Your task to perform on an android device: open app "Cash App" (install if not already installed) and go to login screen Image 0: 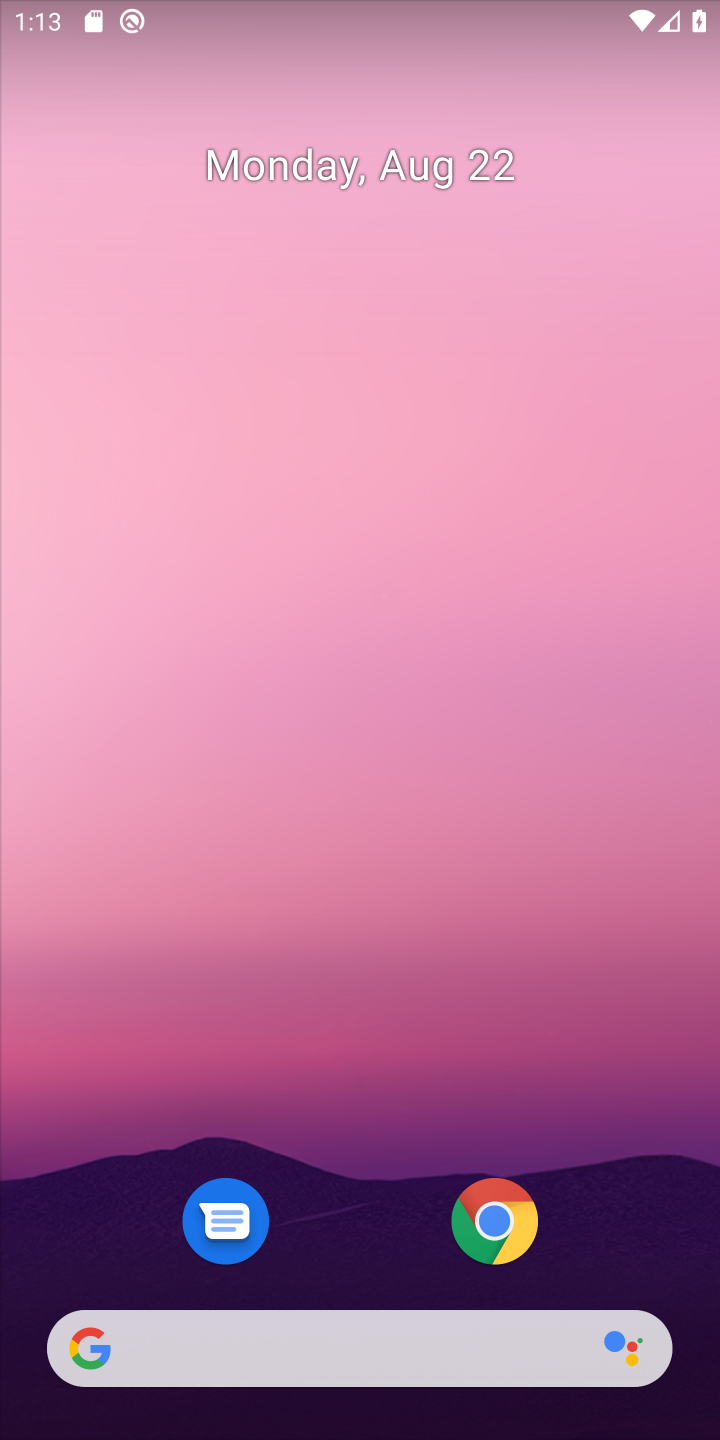
Step 0: press home button
Your task to perform on an android device: open app "Cash App" (install if not already installed) and go to login screen Image 1: 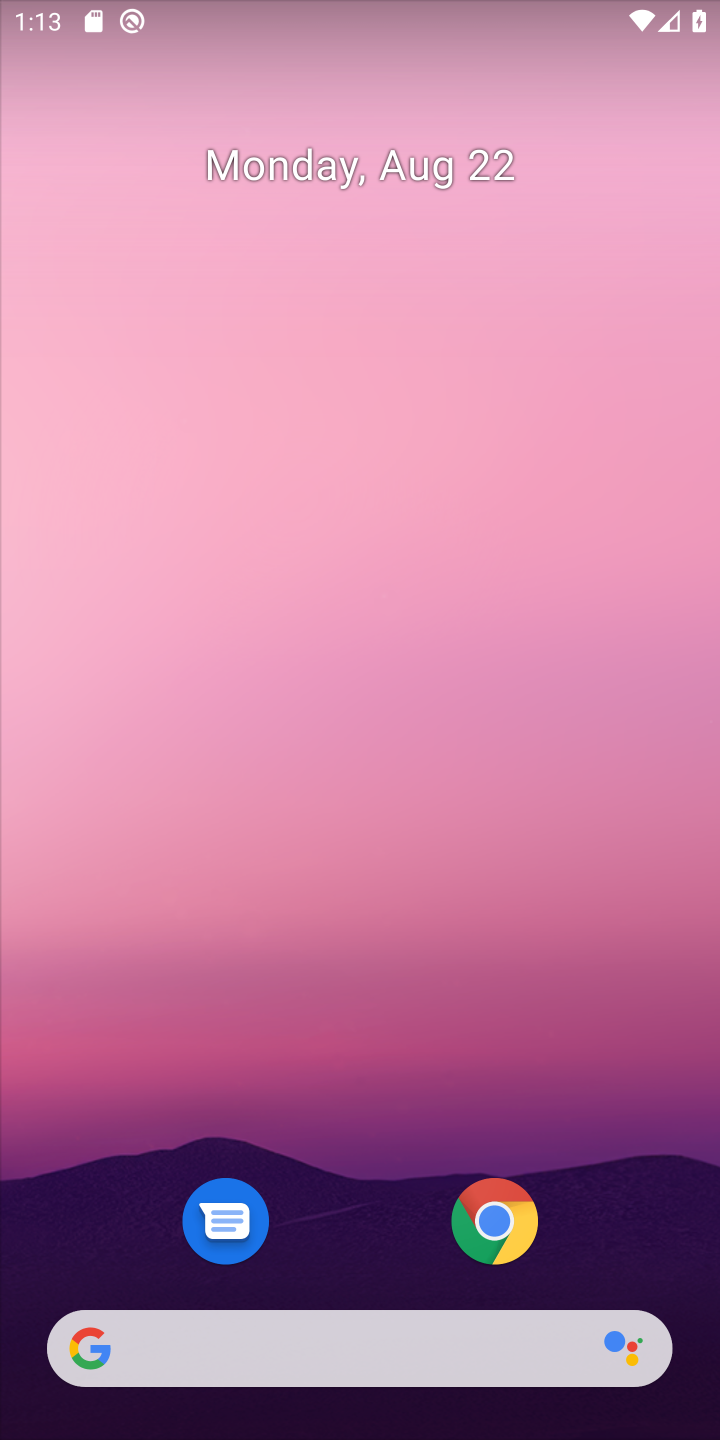
Step 1: drag from (362, 1255) to (407, 137)
Your task to perform on an android device: open app "Cash App" (install if not already installed) and go to login screen Image 2: 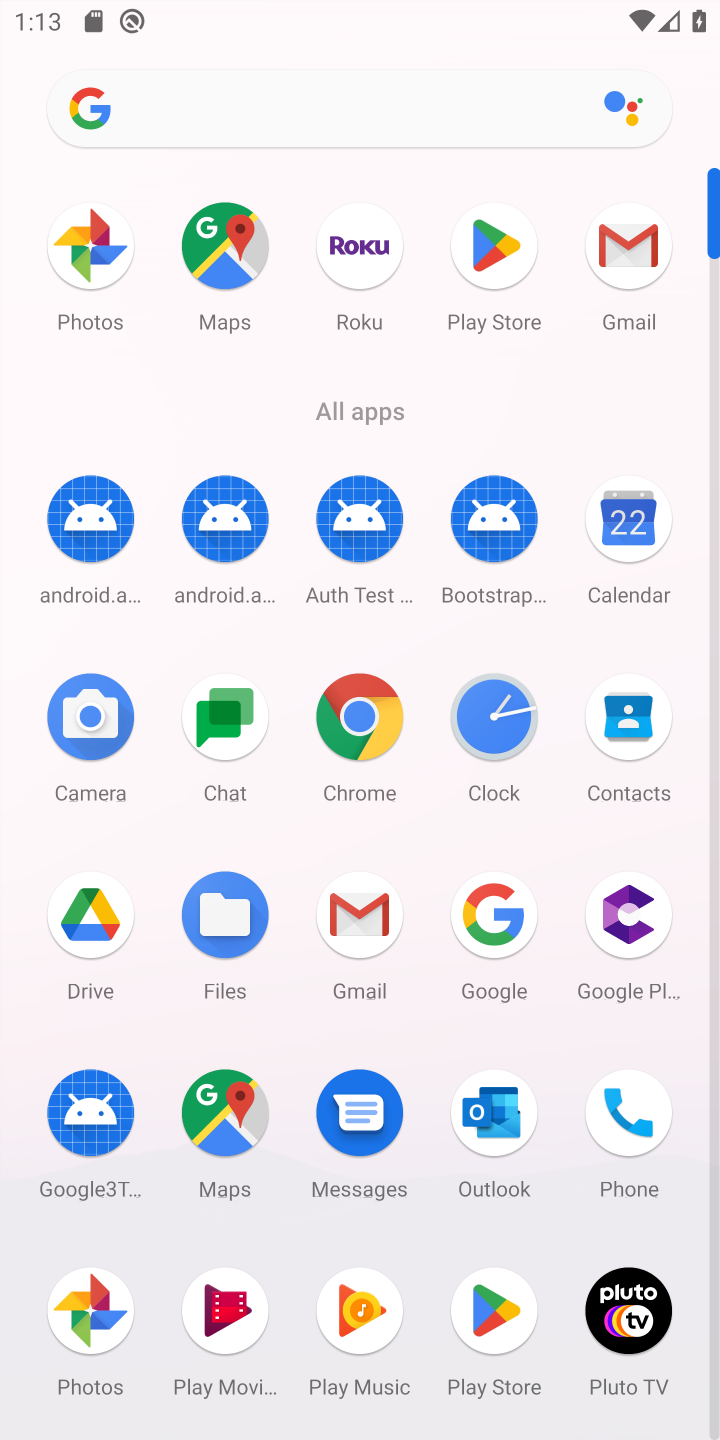
Step 2: click (490, 237)
Your task to perform on an android device: open app "Cash App" (install if not already installed) and go to login screen Image 3: 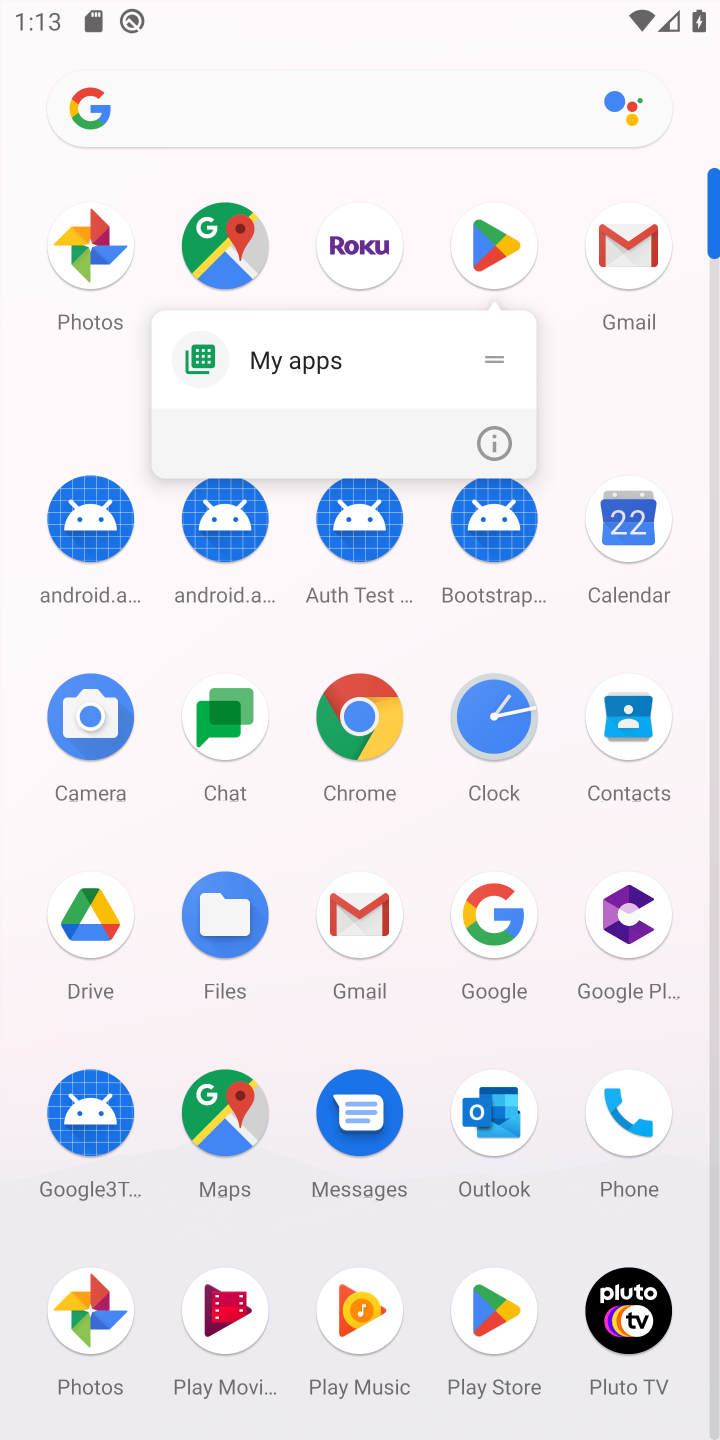
Step 3: click (483, 234)
Your task to perform on an android device: open app "Cash App" (install if not already installed) and go to login screen Image 4: 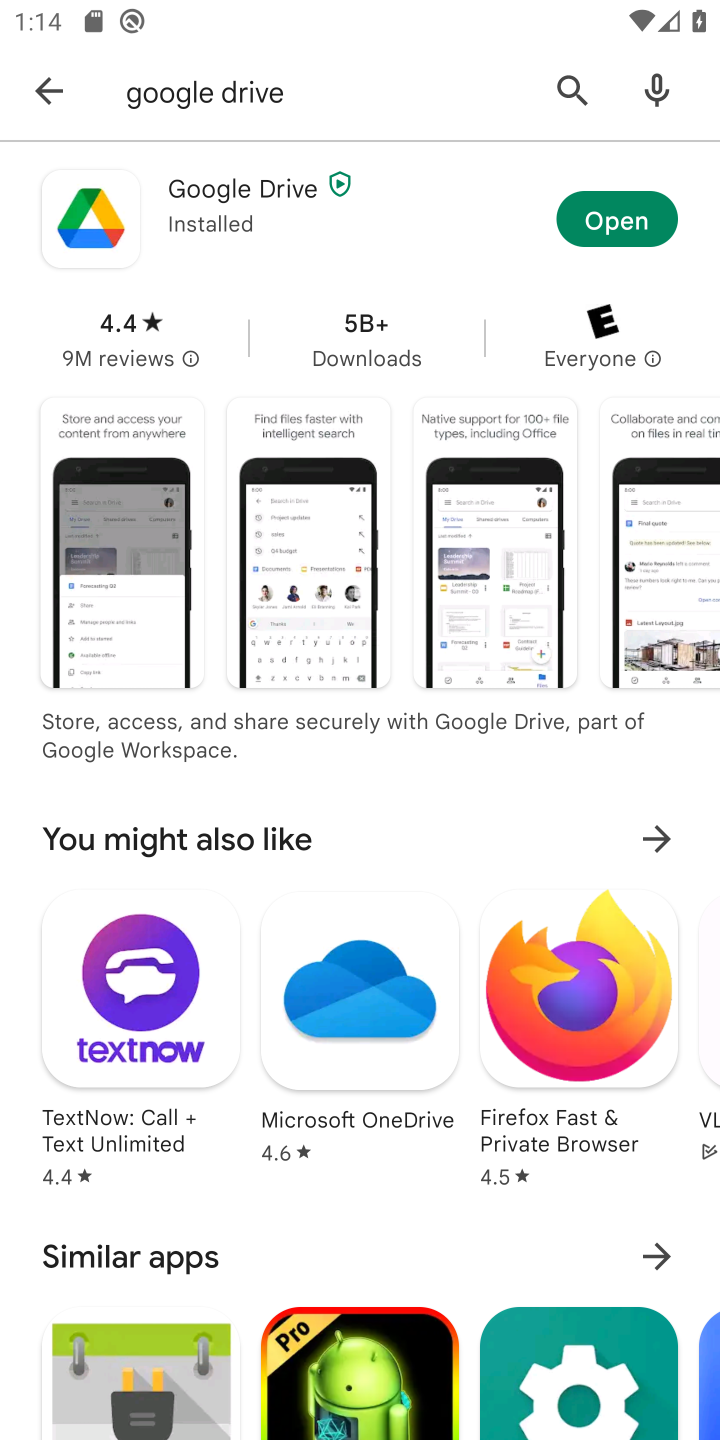
Step 4: click (561, 92)
Your task to perform on an android device: open app "Cash App" (install if not already installed) and go to login screen Image 5: 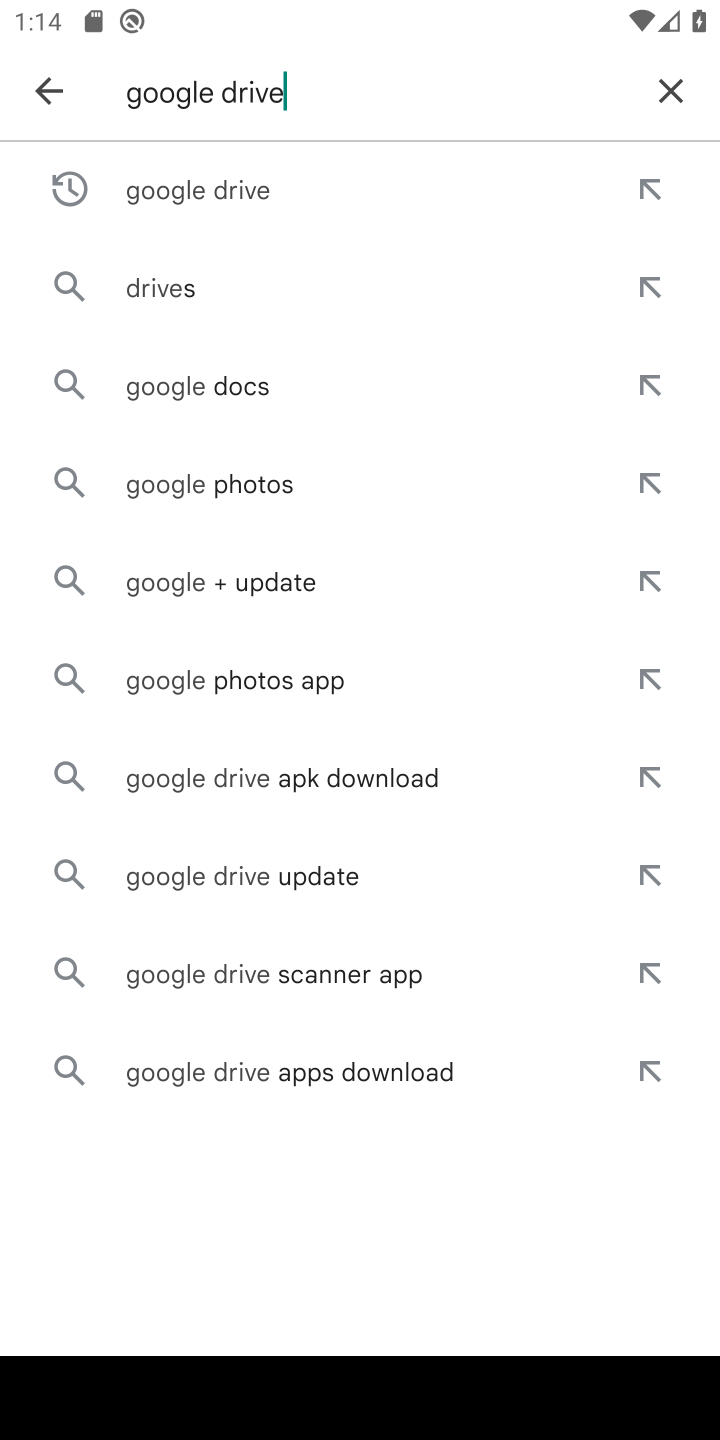
Step 5: click (660, 92)
Your task to perform on an android device: open app "Cash App" (install if not already installed) and go to login screen Image 6: 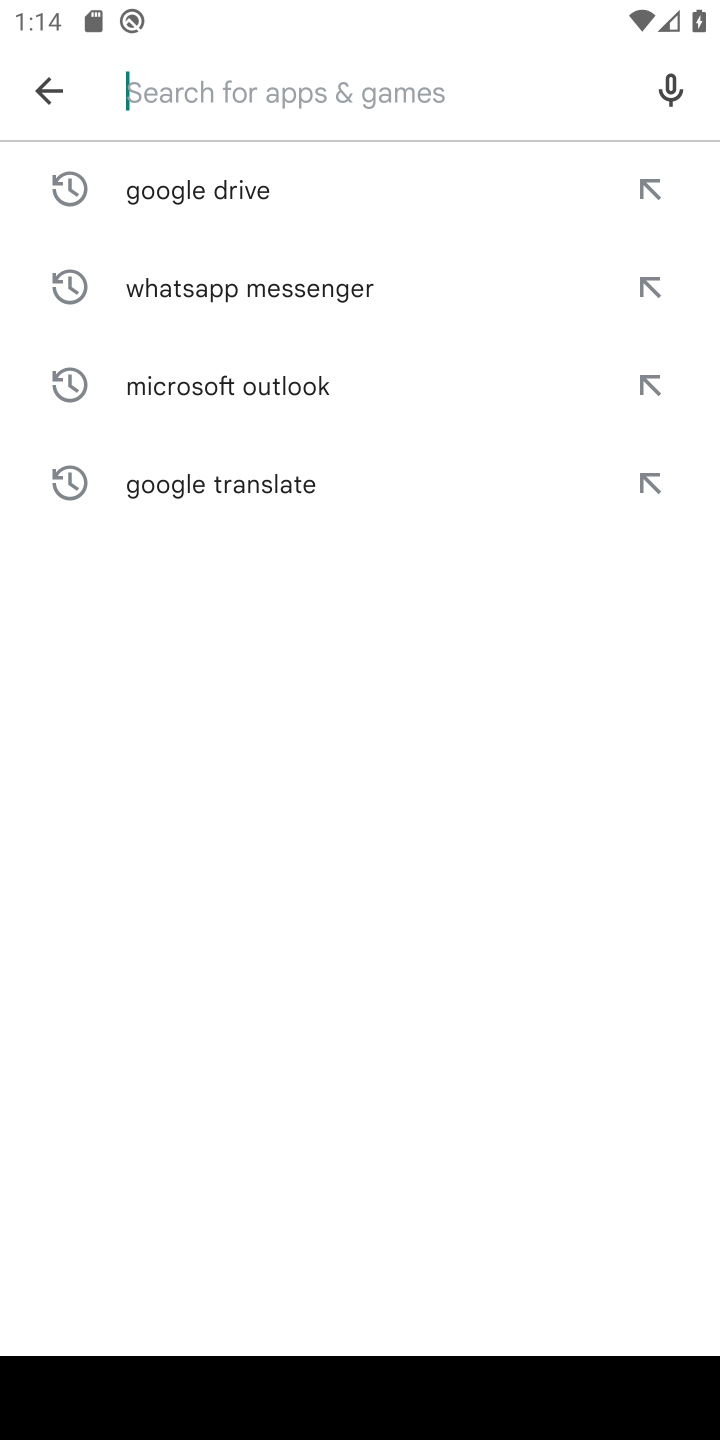
Step 6: type "Cash App"
Your task to perform on an android device: open app "Cash App" (install if not already installed) and go to login screen Image 7: 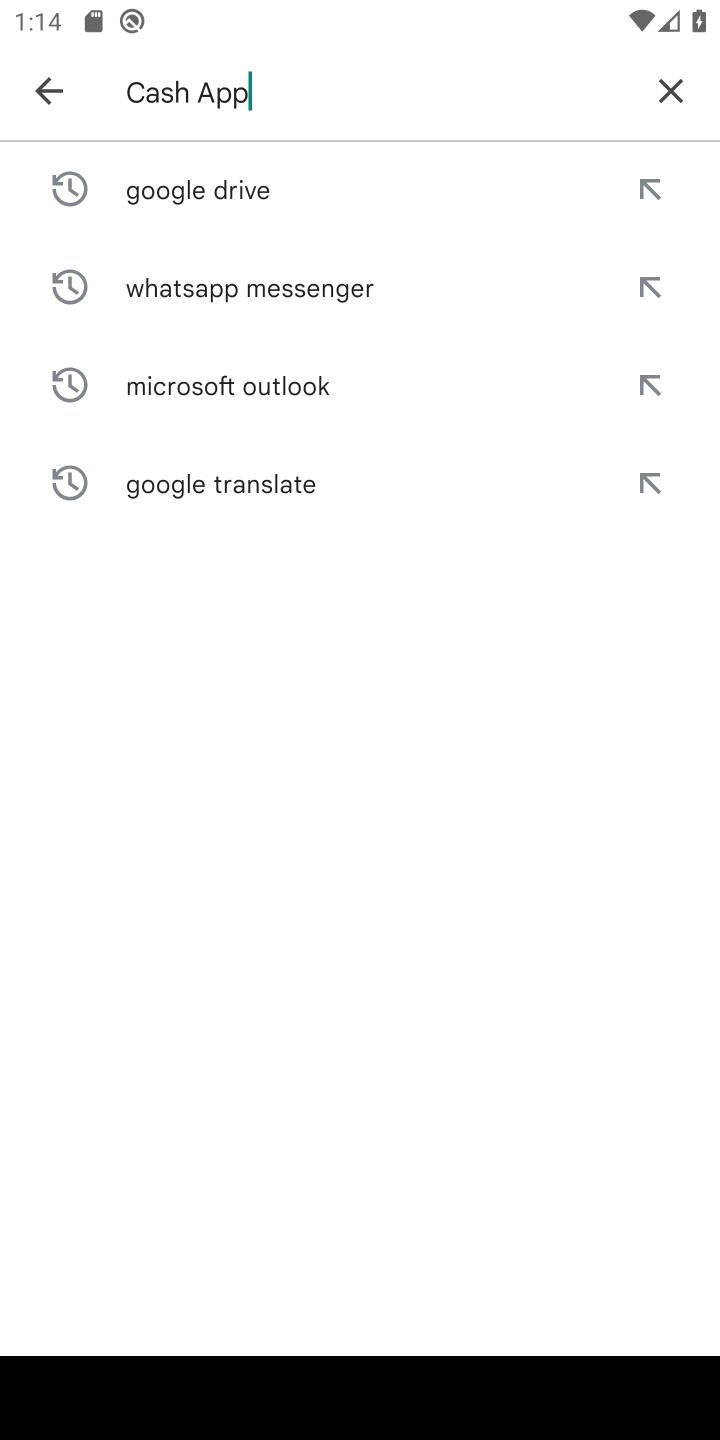
Step 7: type ""
Your task to perform on an android device: open app "Cash App" (install if not already installed) and go to login screen Image 8: 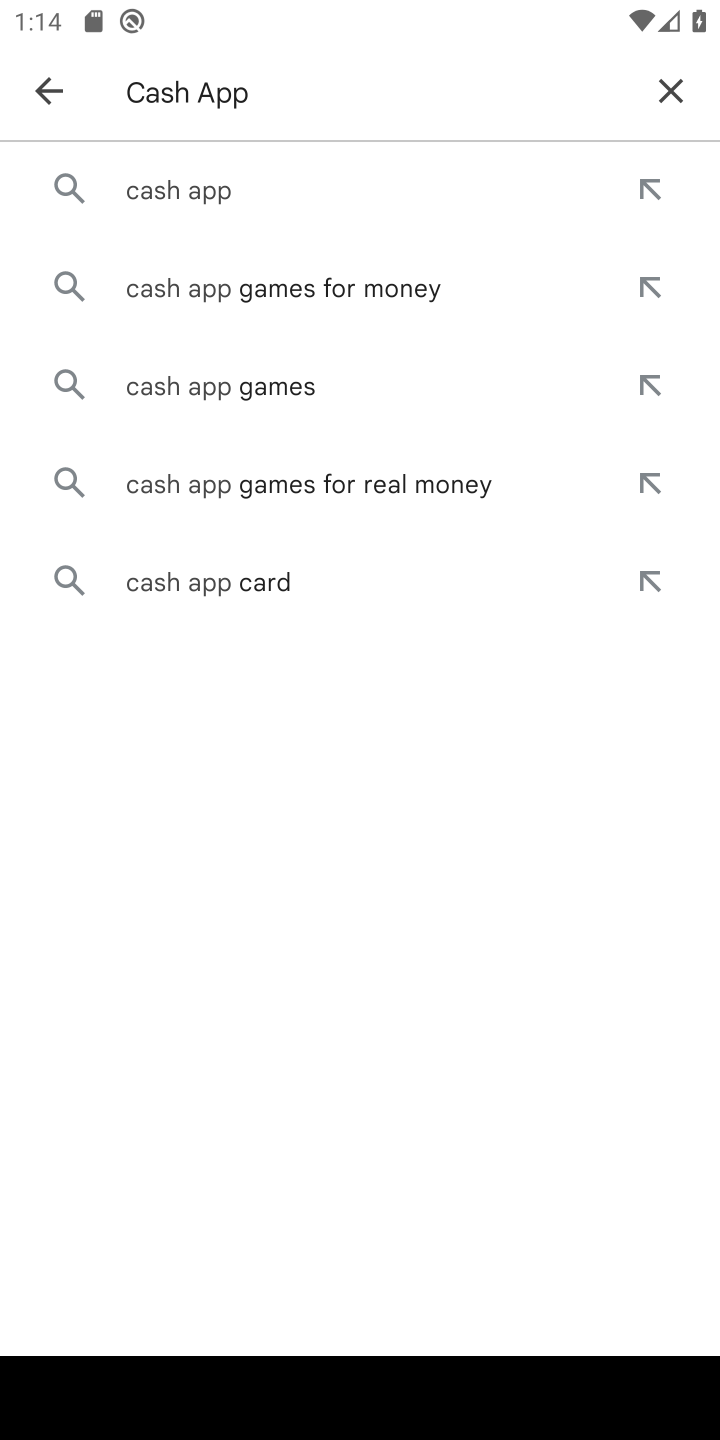
Step 8: click (230, 183)
Your task to perform on an android device: open app "Cash App" (install if not already installed) and go to login screen Image 9: 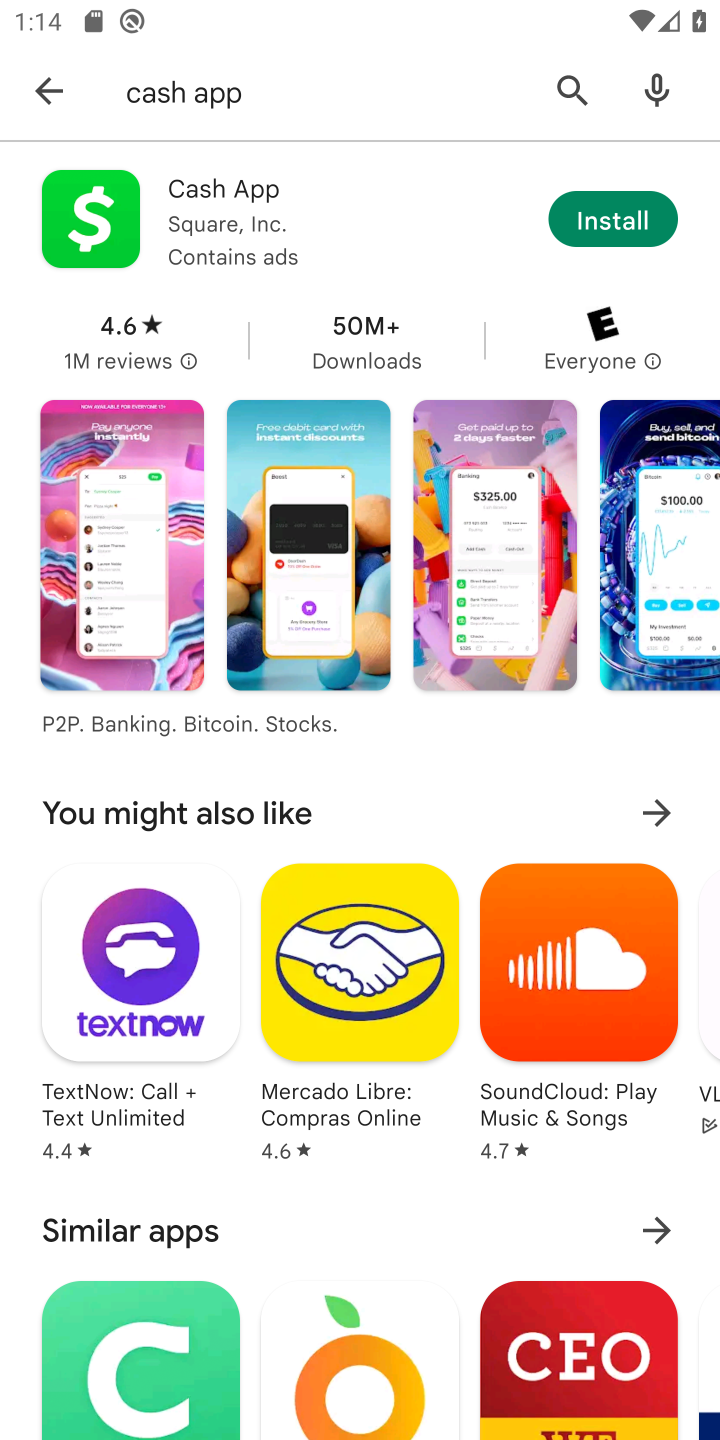
Step 9: click (615, 215)
Your task to perform on an android device: open app "Cash App" (install if not already installed) and go to login screen Image 10: 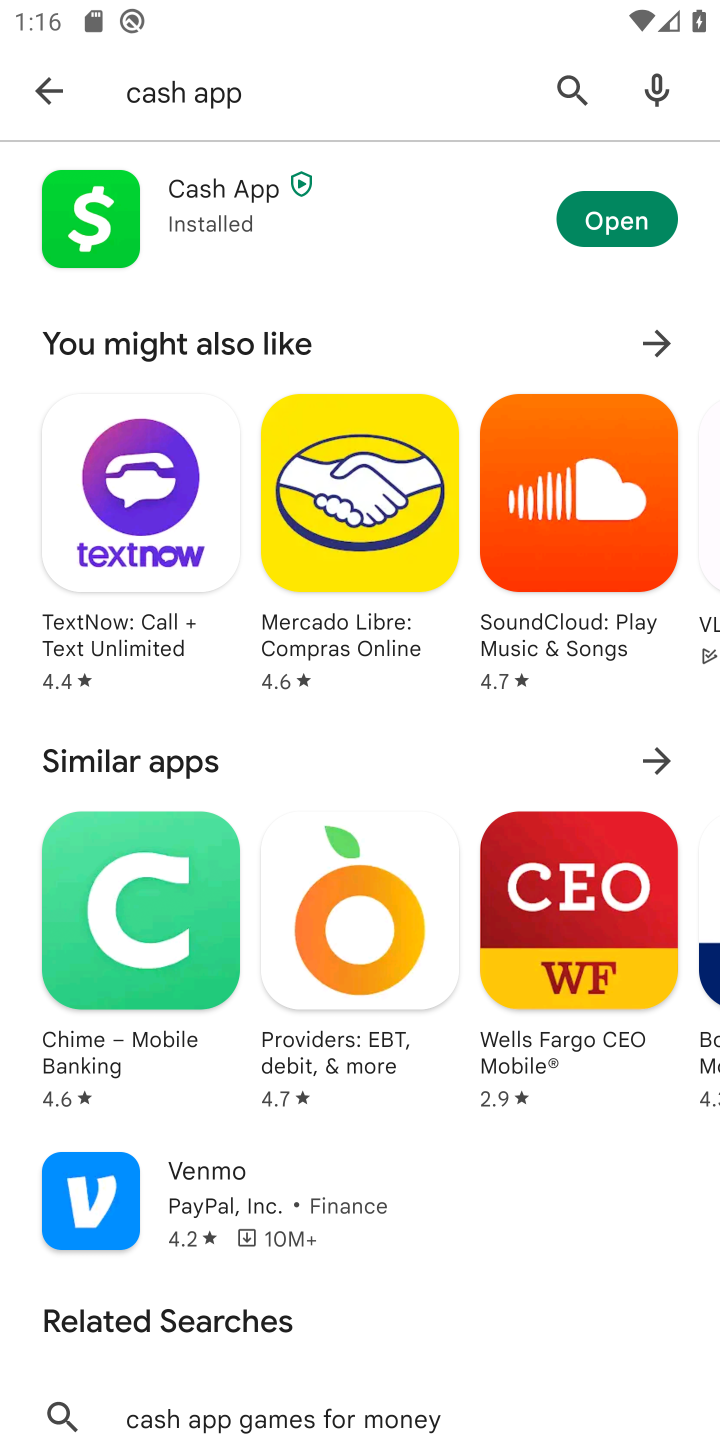
Step 10: click (624, 217)
Your task to perform on an android device: open app "Cash App" (install if not already installed) and go to login screen Image 11: 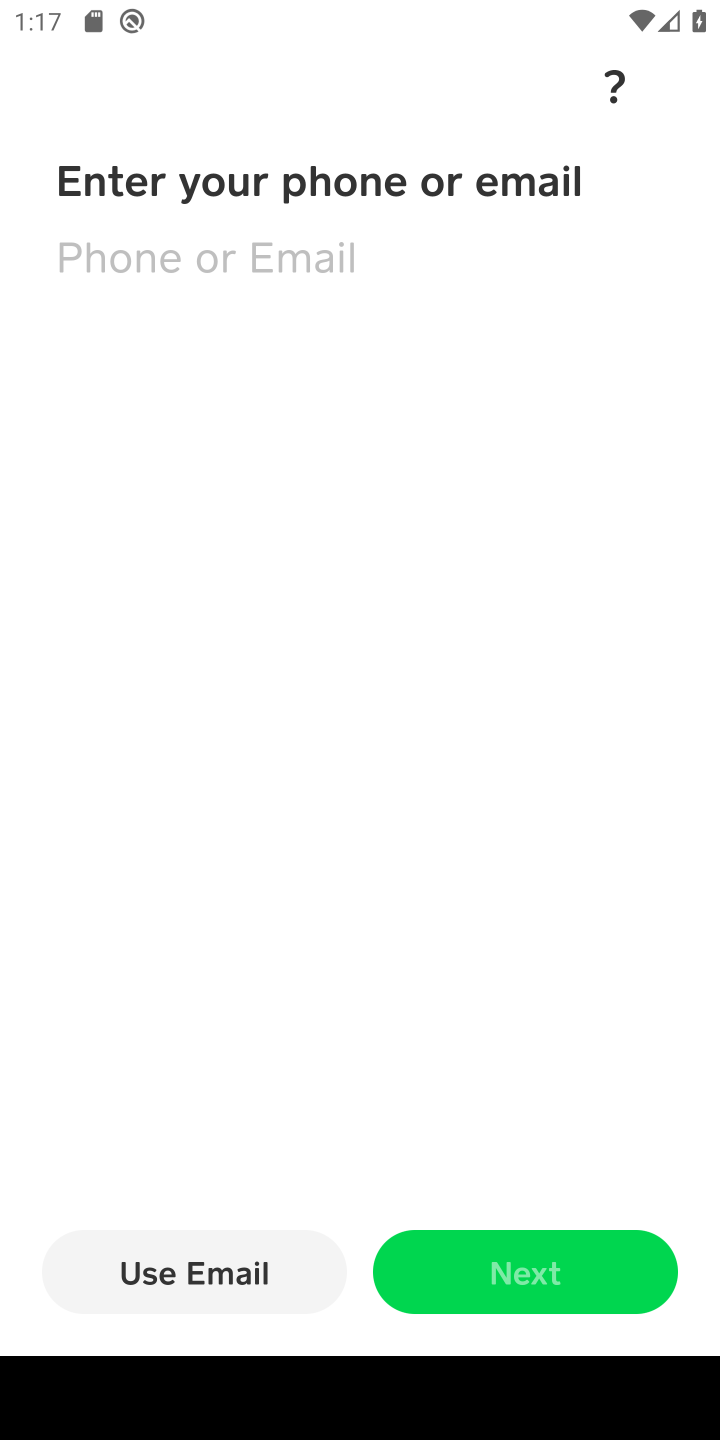
Step 11: task complete